Your task to perform on an android device: Go to network settings Image 0: 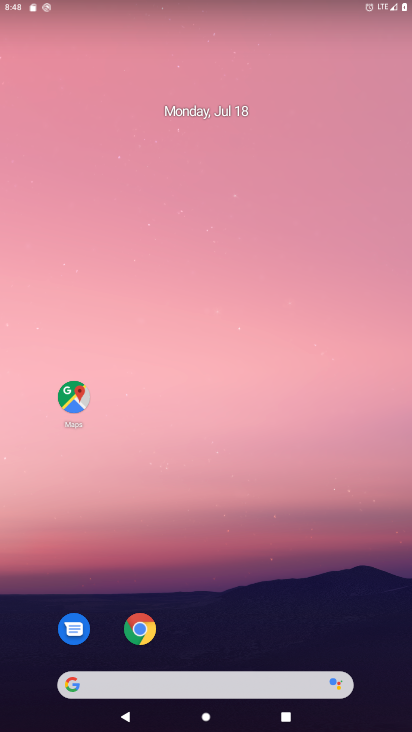
Step 0: press home button
Your task to perform on an android device: Go to network settings Image 1: 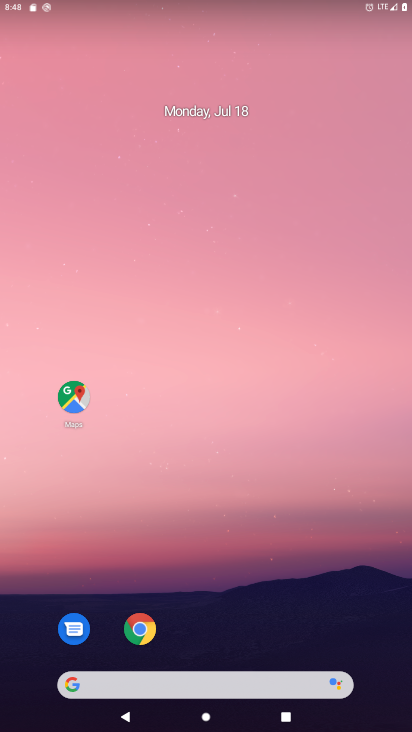
Step 1: drag from (229, 650) to (197, 294)
Your task to perform on an android device: Go to network settings Image 2: 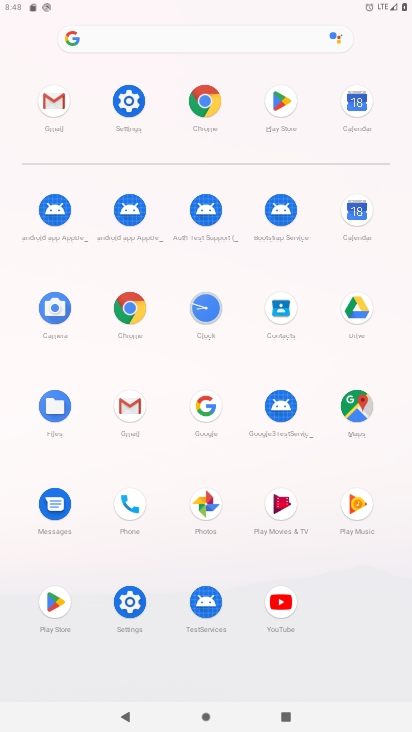
Step 2: click (130, 601)
Your task to perform on an android device: Go to network settings Image 3: 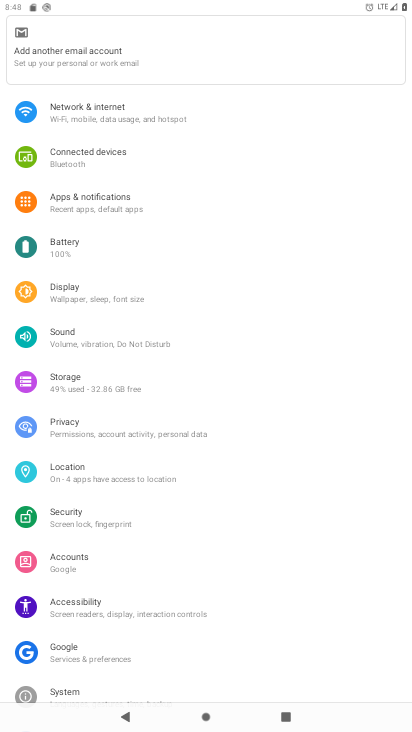
Step 3: click (108, 118)
Your task to perform on an android device: Go to network settings Image 4: 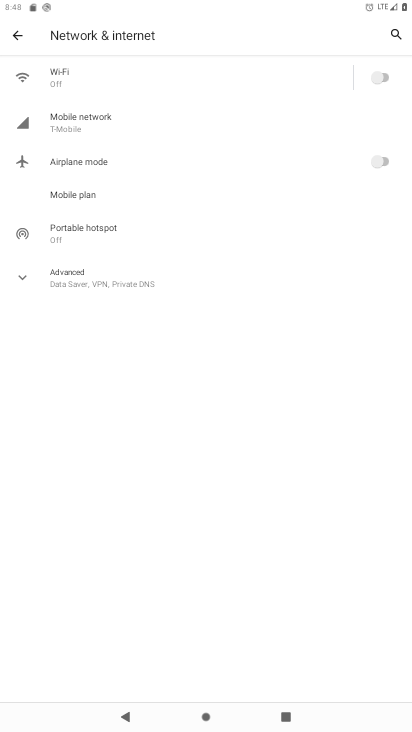
Step 4: click (101, 129)
Your task to perform on an android device: Go to network settings Image 5: 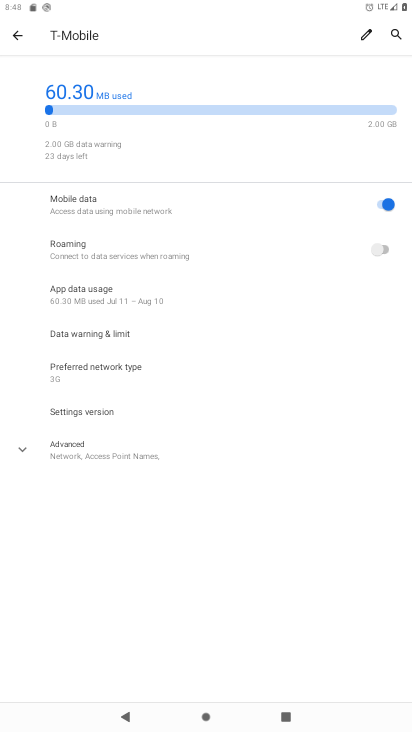
Step 5: task complete